Your task to perform on an android device: Open network settings Image 0: 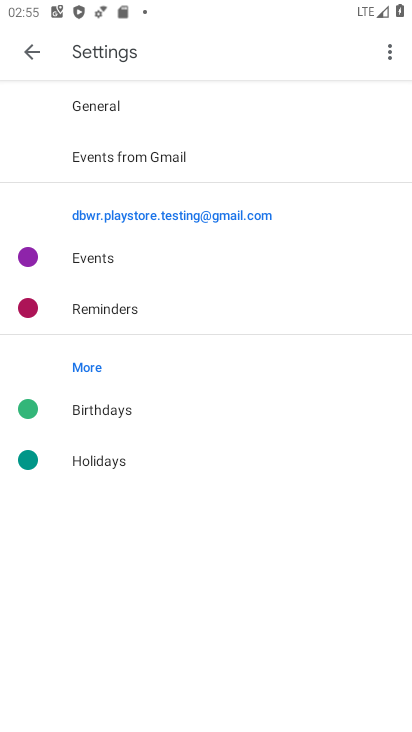
Step 0: press home button
Your task to perform on an android device: Open network settings Image 1: 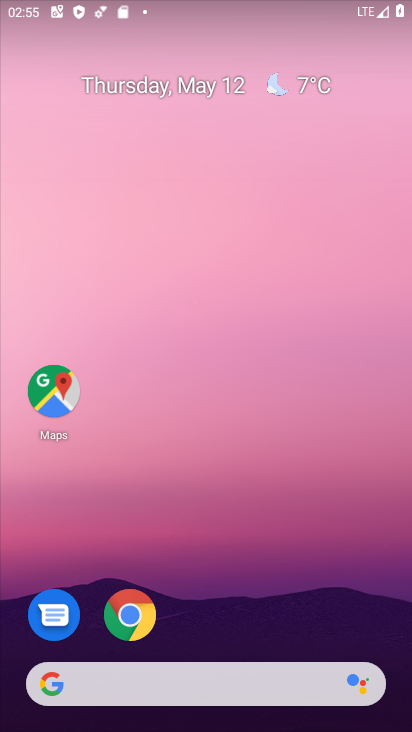
Step 1: drag from (224, 659) to (224, 303)
Your task to perform on an android device: Open network settings Image 2: 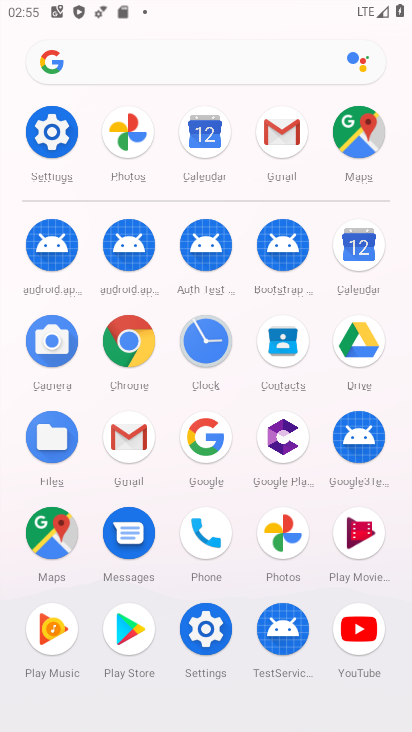
Step 2: click (219, 632)
Your task to perform on an android device: Open network settings Image 3: 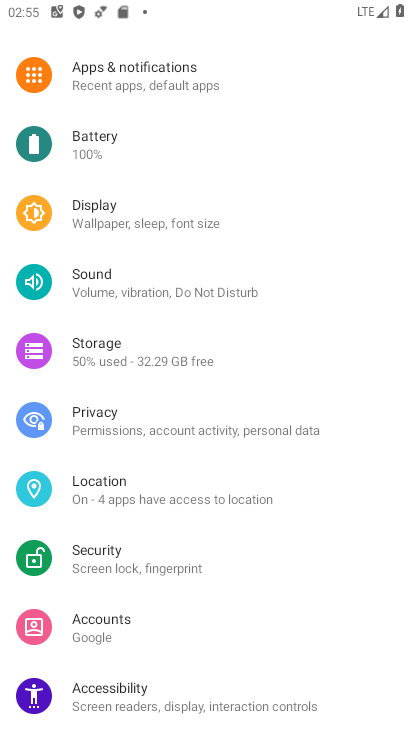
Step 3: drag from (166, 193) to (171, 407)
Your task to perform on an android device: Open network settings Image 4: 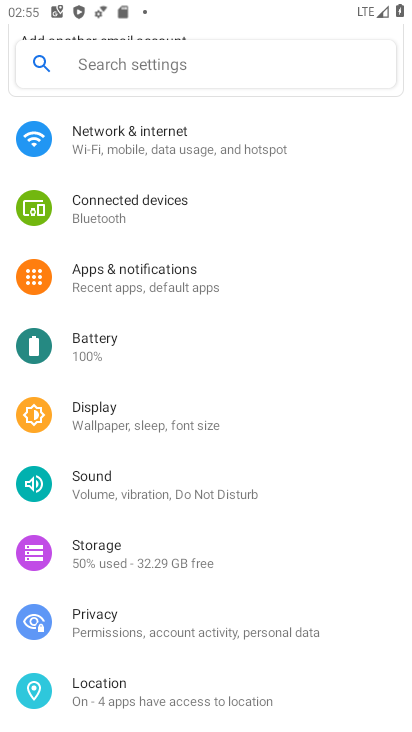
Step 4: click (171, 155)
Your task to perform on an android device: Open network settings Image 5: 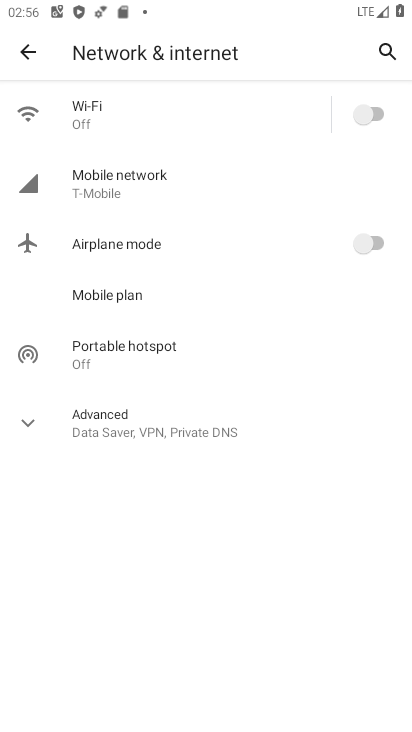
Step 5: task complete